Your task to perform on an android device: turn off location Image 0: 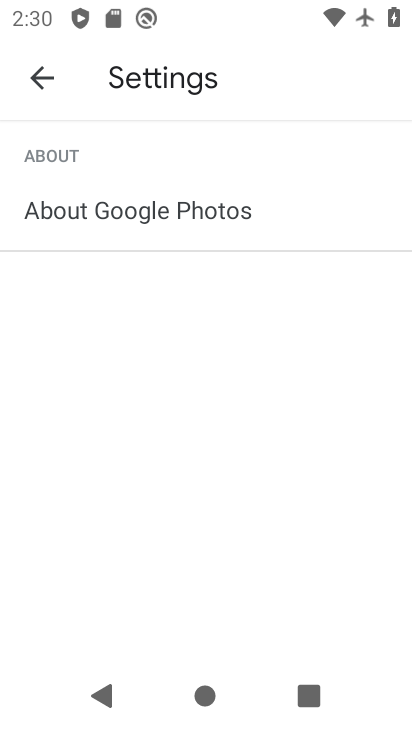
Step 0: press home button
Your task to perform on an android device: turn off location Image 1: 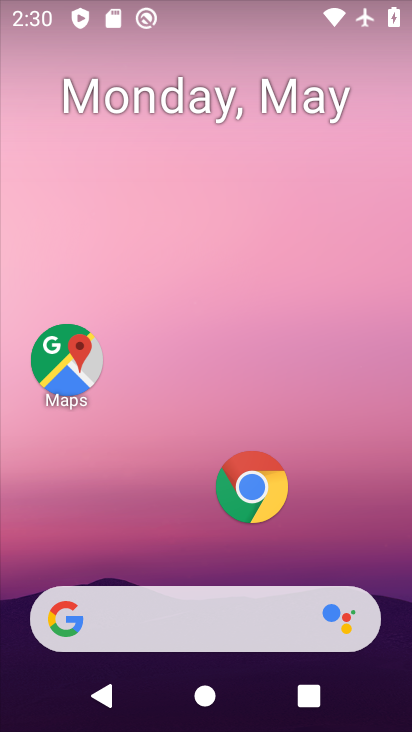
Step 1: drag from (178, 538) to (166, 47)
Your task to perform on an android device: turn off location Image 2: 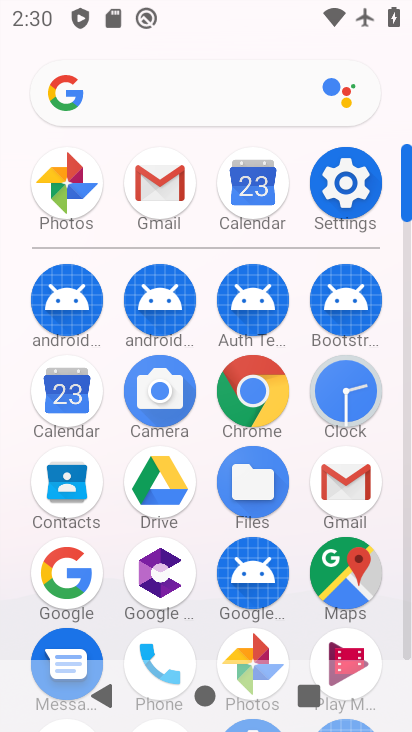
Step 2: click (341, 180)
Your task to perform on an android device: turn off location Image 3: 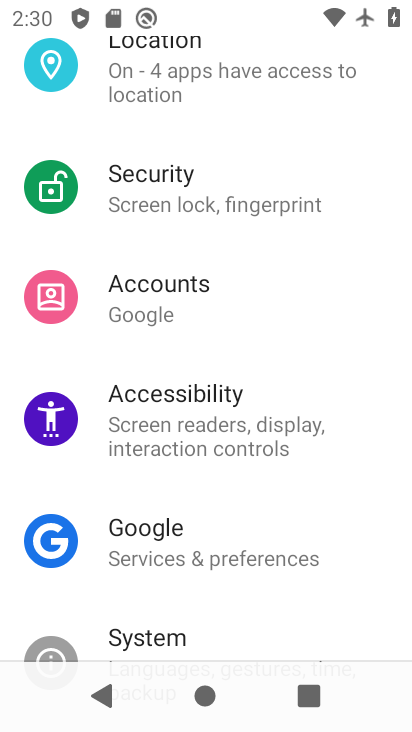
Step 3: click (188, 95)
Your task to perform on an android device: turn off location Image 4: 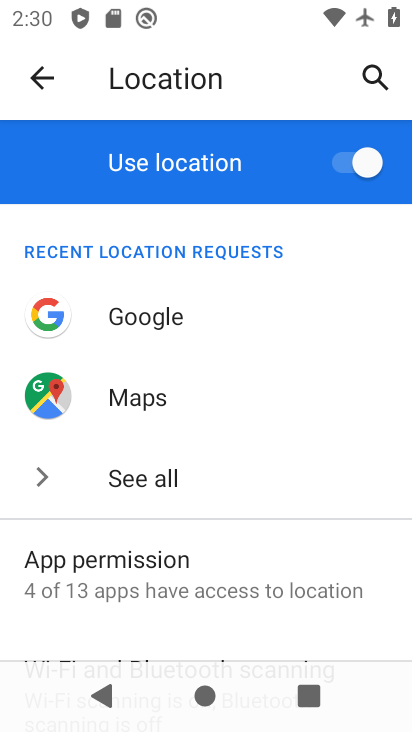
Step 4: click (326, 191)
Your task to perform on an android device: turn off location Image 5: 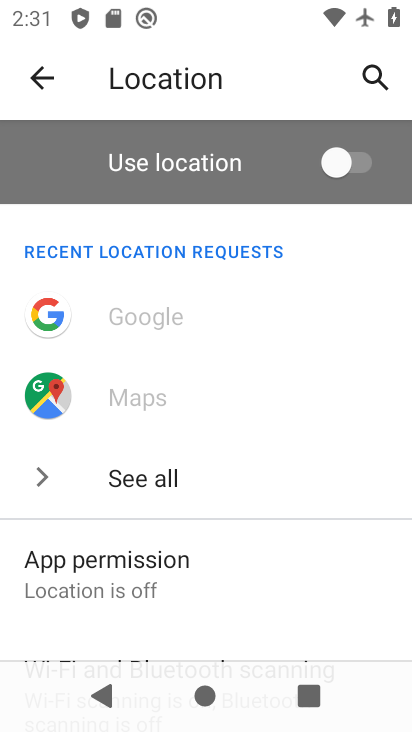
Step 5: task complete